Your task to perform on an android device: check google app version Image 0: 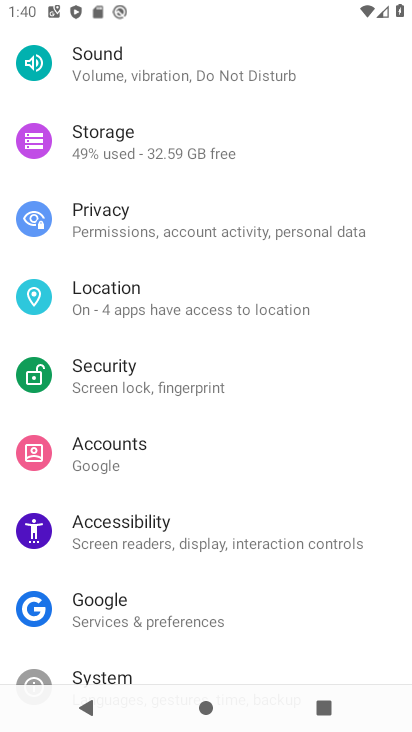
Step 0: drag from (278, 572) to (336, 137)
Your task to perform on an android device: check google app version Image 1: 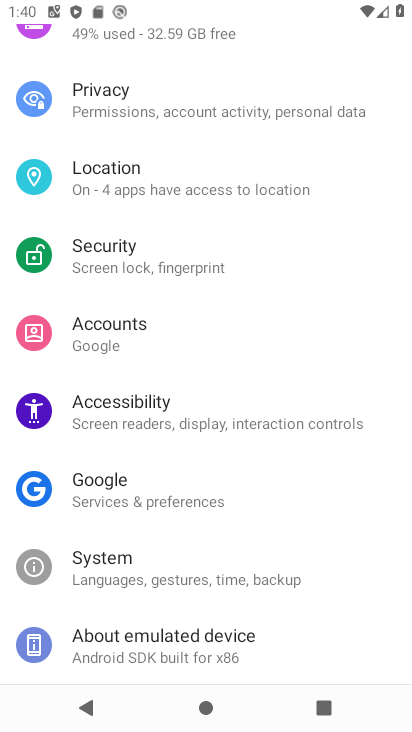
Step 1: press home button
Your task to perform on an android device: check google app version Image 2: 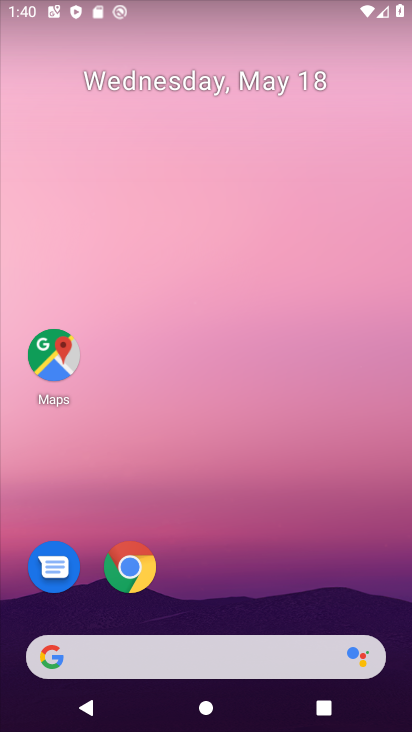
Step 2: drag from (255, 545) to (287, 133)
Your task to perform on an android device: check google app version Image 3: 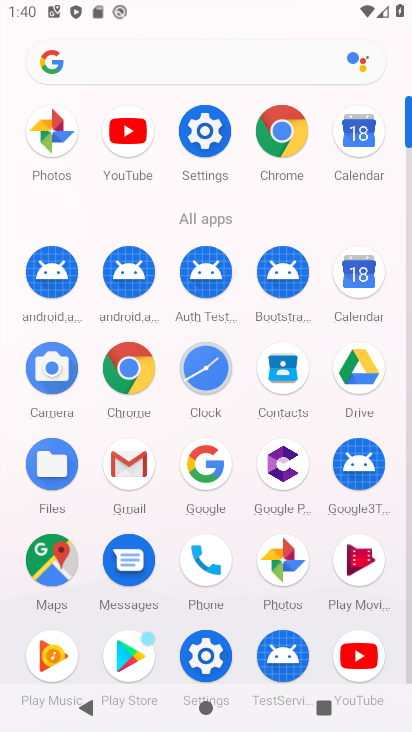
Step 3: click (212, 461)
Your task to perform on an android device: check google app version Image 4: 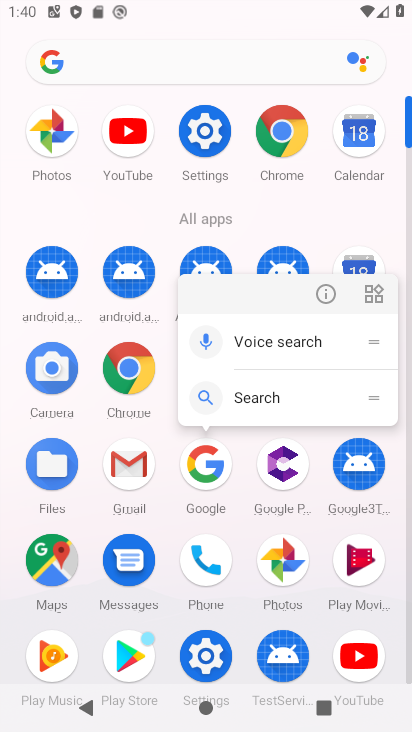
Step 4: click (322, 298)
Your task to perform on an android device: check google app version Image 5: 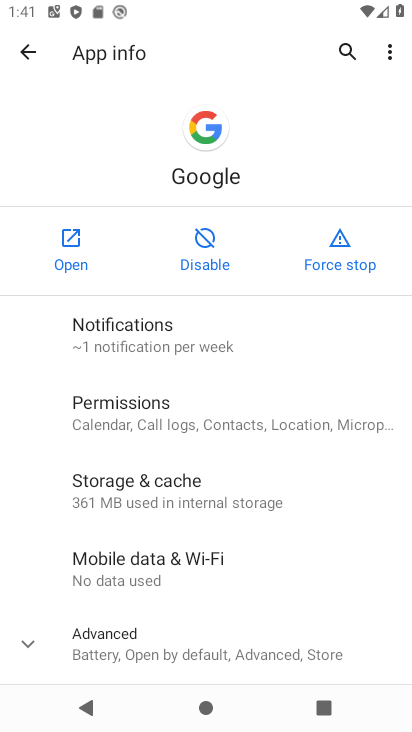
Step 5: drag from (233, 580) to (317, 9)
Your task to perform on an android device: check google app version Image 6: 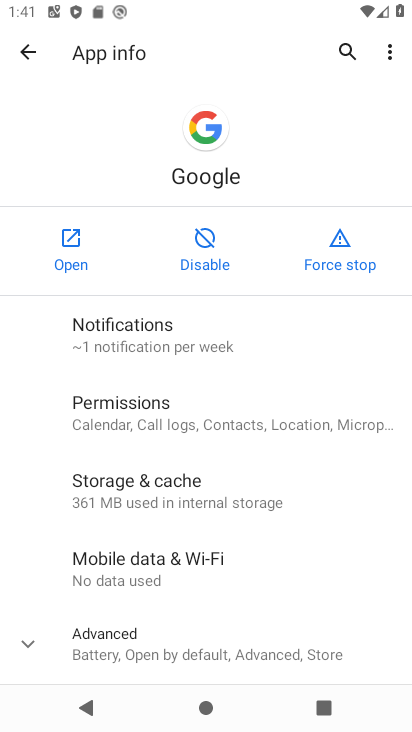
Step 6: click (157, 657)
Your task to perform on an android device: check google app version Image 7: 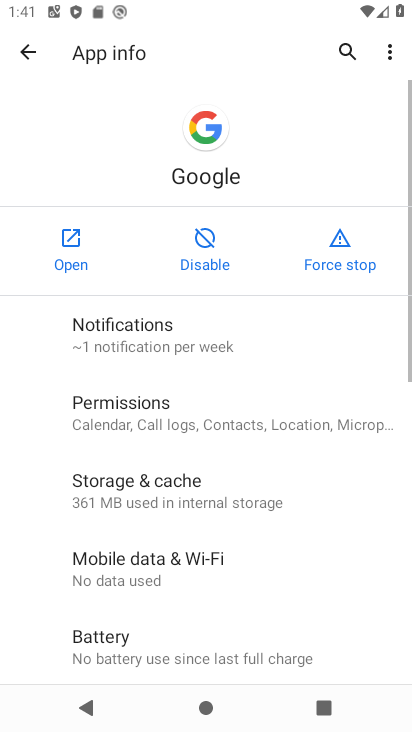
Step 7: task complete